Your task to perform on an android device: Go to Reddit.com Image 0: 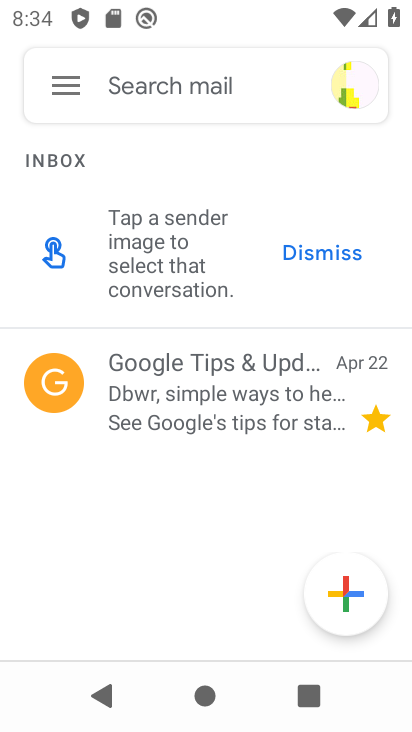
Step 0: press home button
Your task to perform on an android device: Go to Reddit.com Image 1: 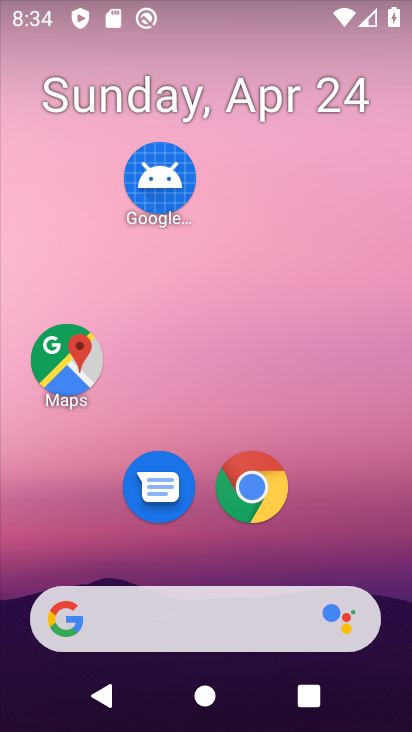
Step 1: click (261, 486)
Your task to perform on an android device: Go to Reddit.com Image 2: 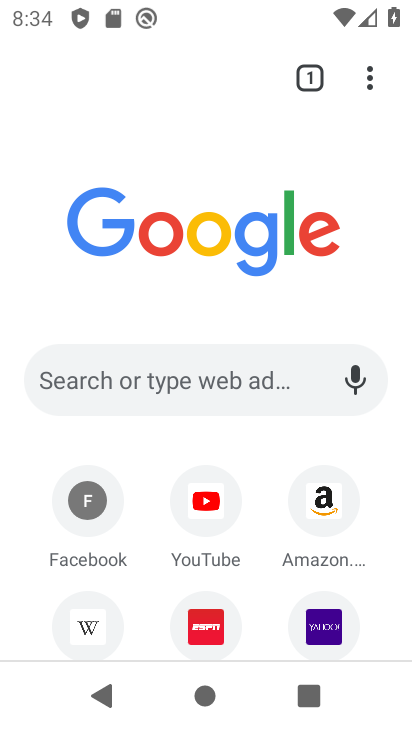
Step 2: click (176, 380)
Your task to perform on an android device: Go to Reddit.com Image 3: 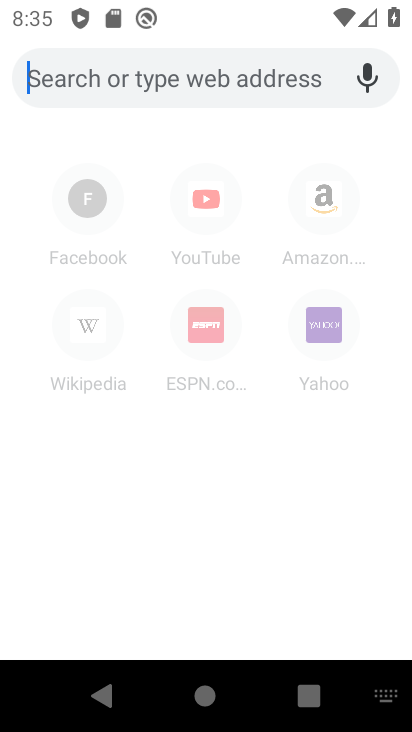
Step 3: type "reddit.com"
Your task to perform on an android device: Go to Reddit.com Image 4: 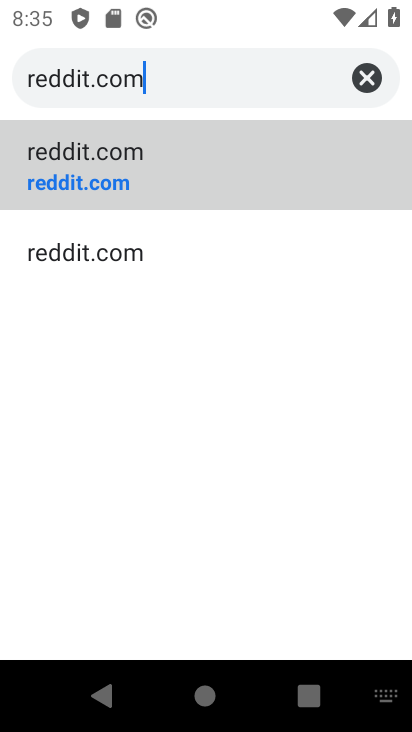
Step 4: click (94, 176)
Your task to perform on an android device: Go to Reddit.com Image 5: 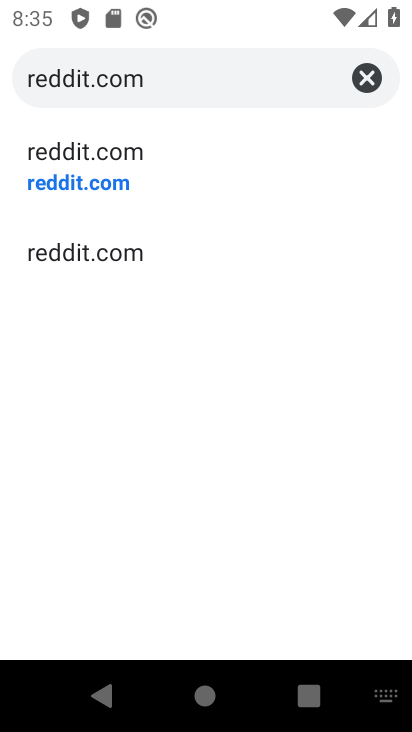
Step 5: click (91, 175)
Your task to perform on an android device: Go to Reddit.com Image 6: 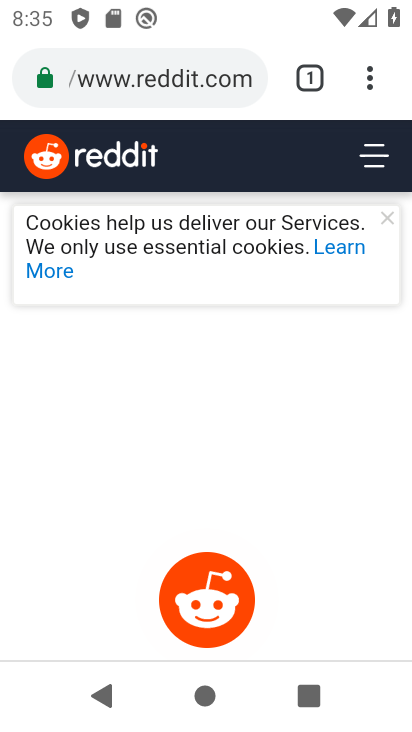
Step 6: task complete